Your task to perform on an android device: Search for jbl charge 4 on ebay.com, select the first entry, add it to the cart, then select checkout. Image 0: 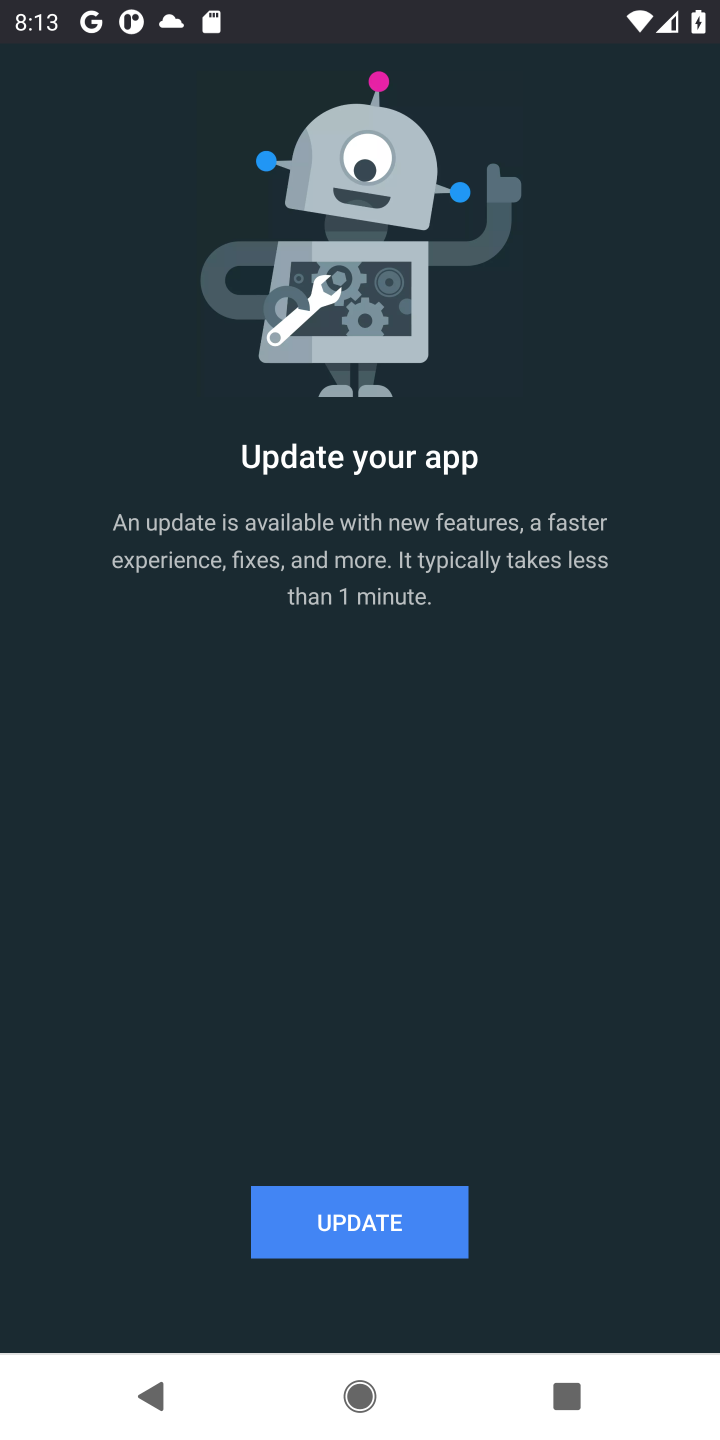
Step 0: press home button
Your task to perform on an android device: Search for jbl charge 4 on ebay.com, select the first entry, add it to the cart, then select checkout. Image 1: 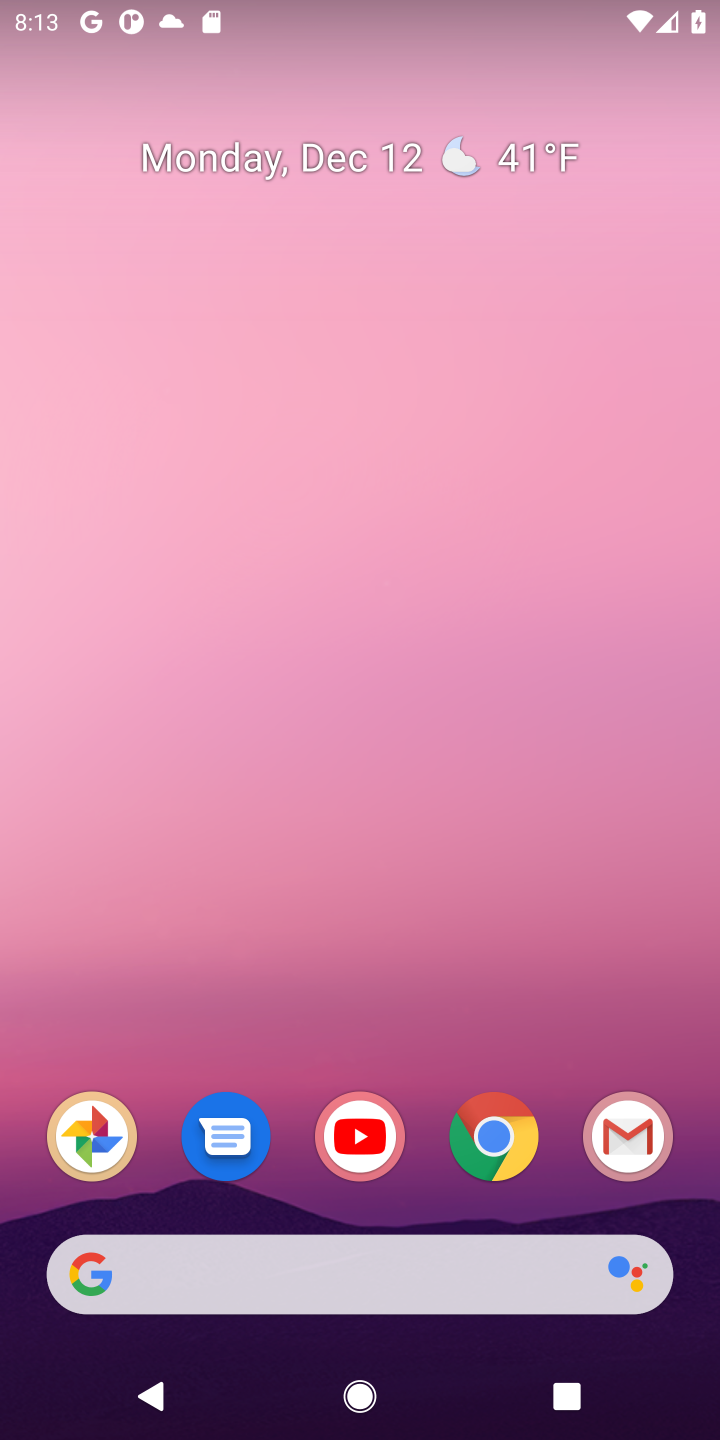
Step 1: click (502, 1139)
Your task to perform on an android device: Search for jbl charge 4 on ebay.com, select the first entry, add it to the cart, then select checkout. Image 2: 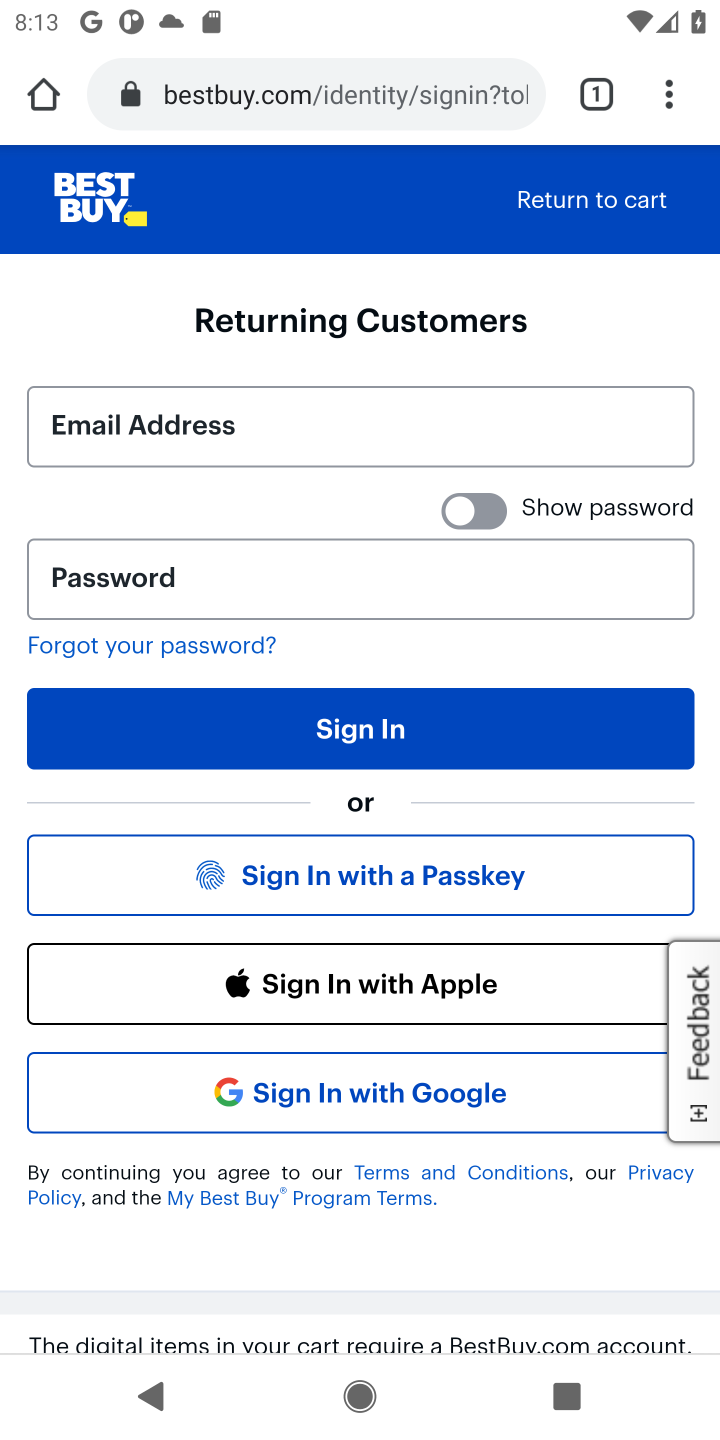
Step 2: click (348, 115)
Your task to perform on an android device: Search for jbl charge 4 on ebay.com, select the first entry, add it to the cart, then select checkout. Image 3: 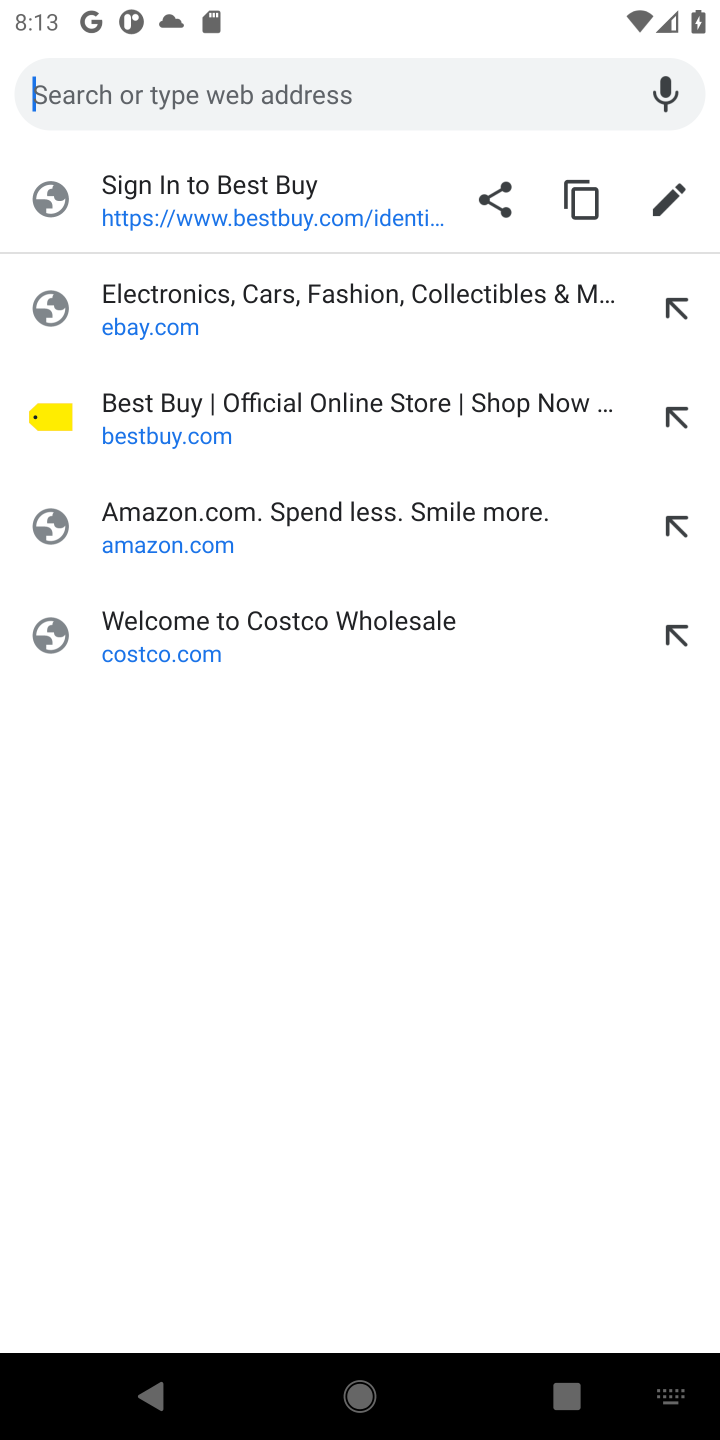
Step 3: click (207, 330)
Your task to perform on an android device: Search for jbl charge 4 on ebay.com, select the first entry, add it to the cart, then select checkout. Image 4: 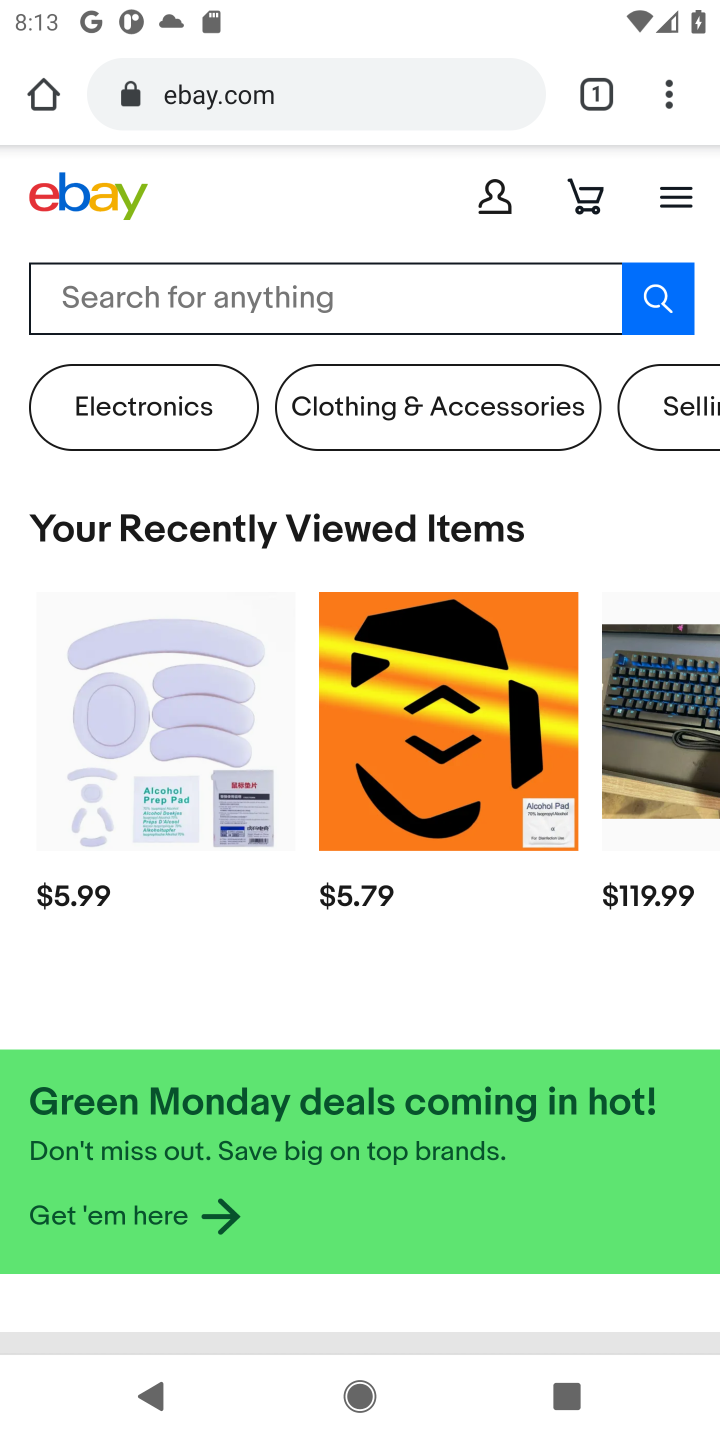
Step 4: click (219, 310)
Your task to perform on an android device: Search for jbl charge 4 on ebay.com, select the first entry, add it to the cart, then select checkout. Image 5: 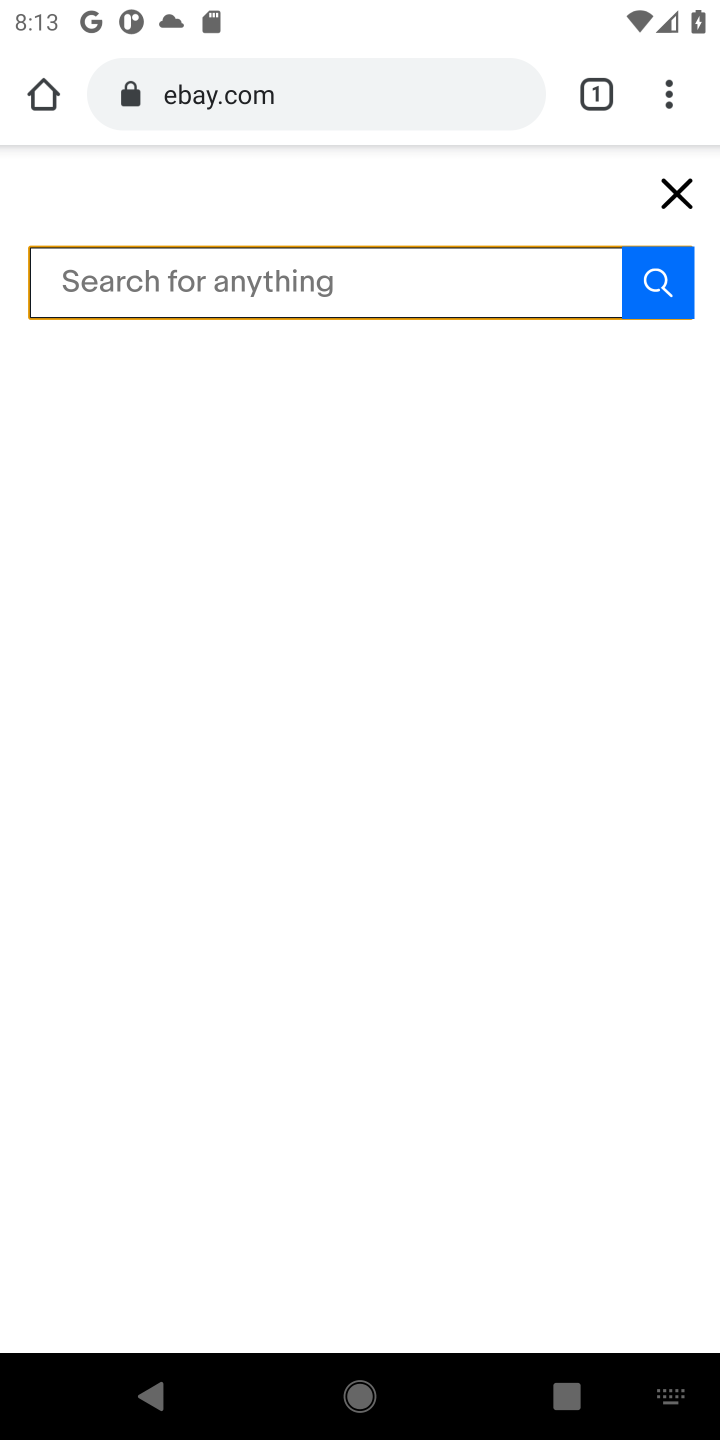
Step 5: type "jbl charge 4"
Your task to perform on an android device: Search for jbl charge 4 on ebay.com, select the first entry, add it to the cart, then select checkout. Image 6: 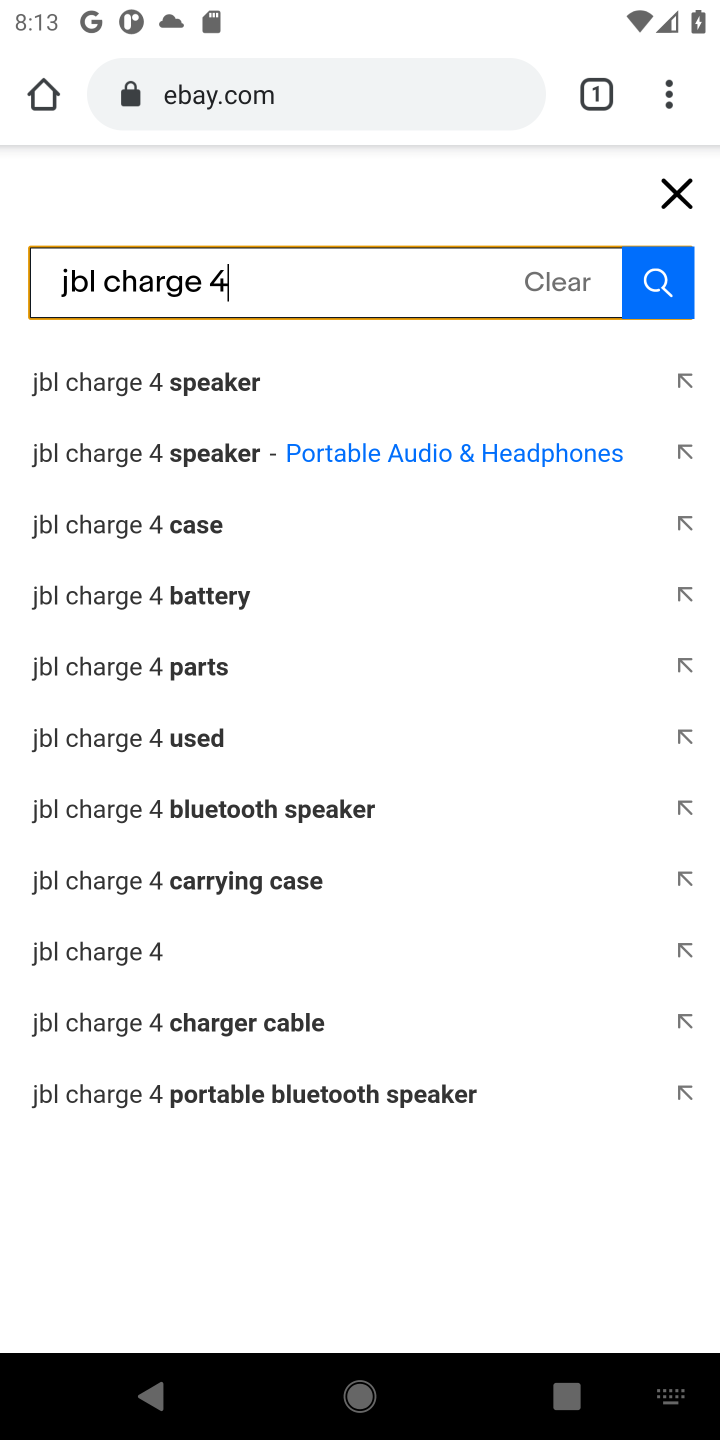
Step 6: click (143, 947)
Your task to perform on an android device: Search for jbl charge 4 on ebay.com, select the first entry, add it to the cart, then select checkout. Image 7: 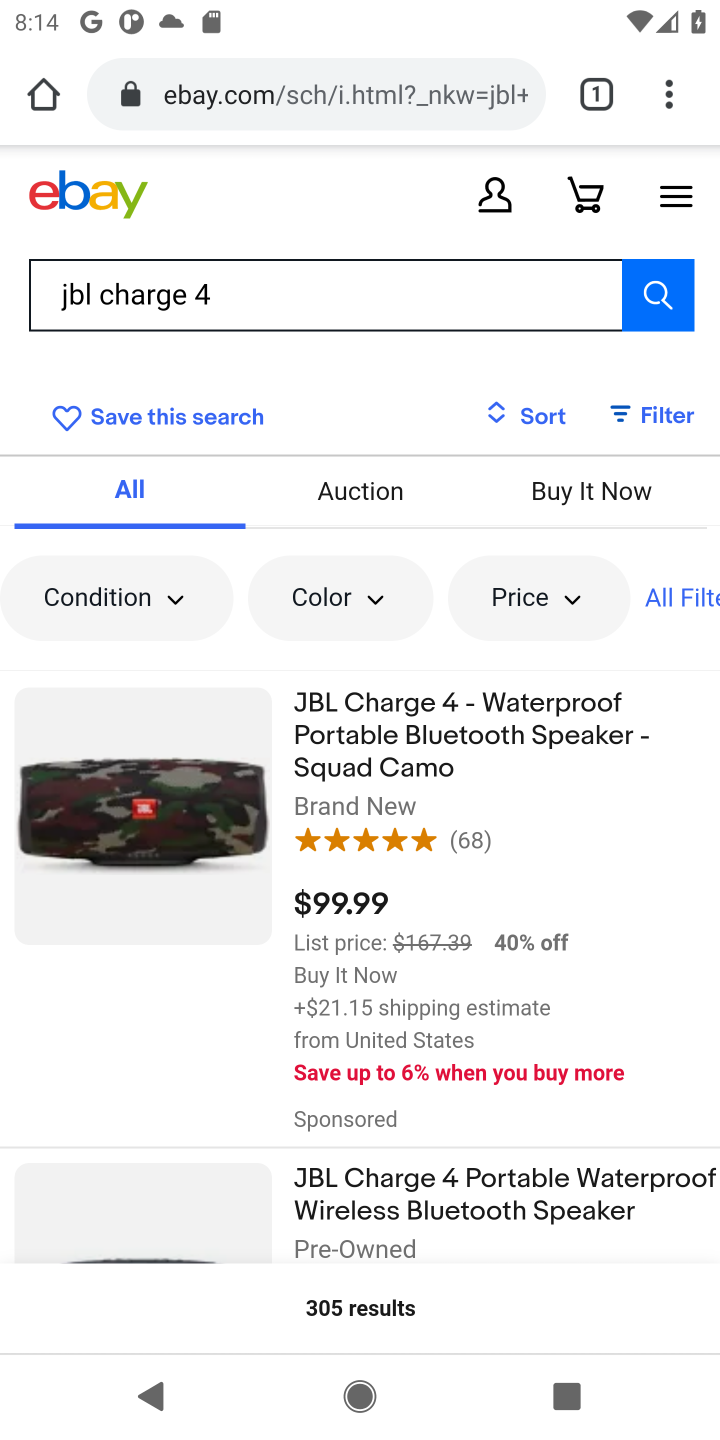
Step 7: click (379, 790)
Your task to perform on an android device: Search for jbl charge 4 on ebay.com, select the first entry, add it to the cart, then select checkout. Image 8: 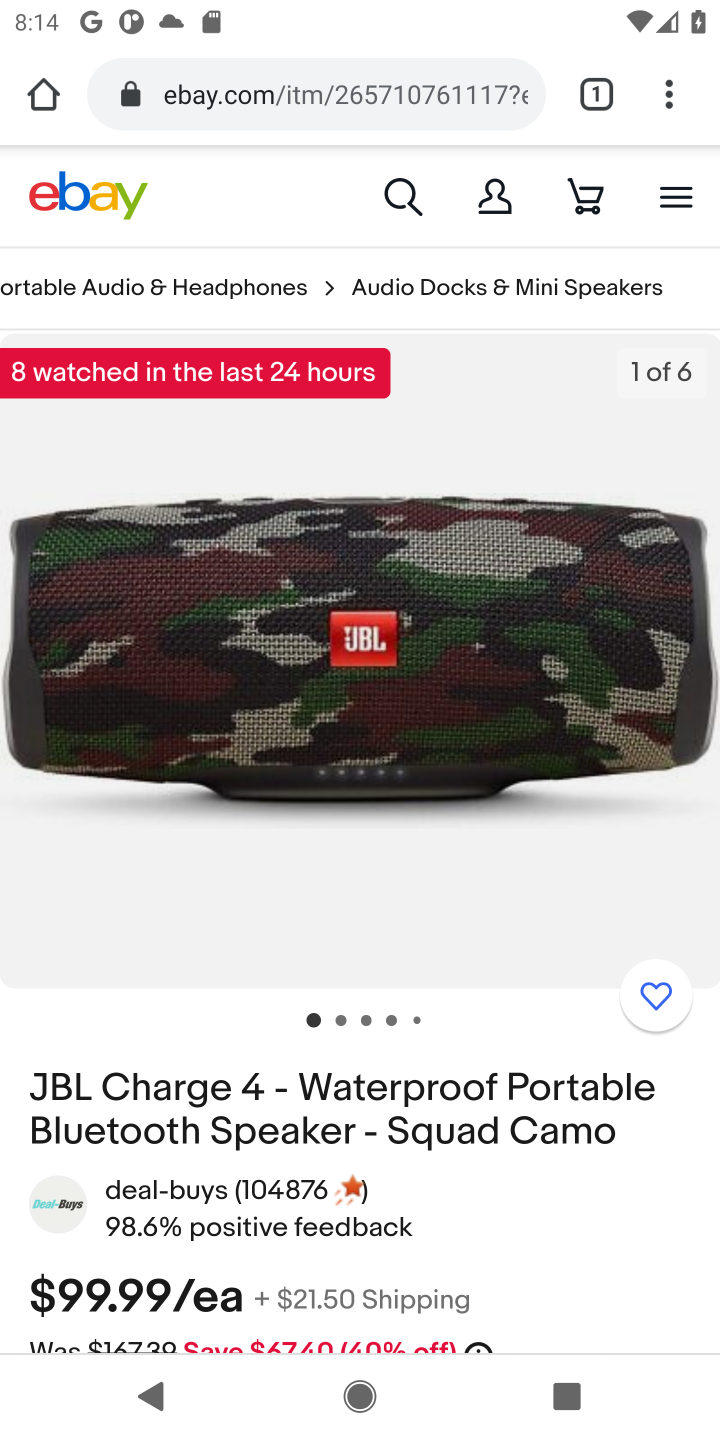
Step 8: drag from (393, 1122) to (389, 649)
Your task to perform on an android device: Search for jbl charge 4 on ebay.com, select the first entry, add it to the cart, then select checkout. Image 9: 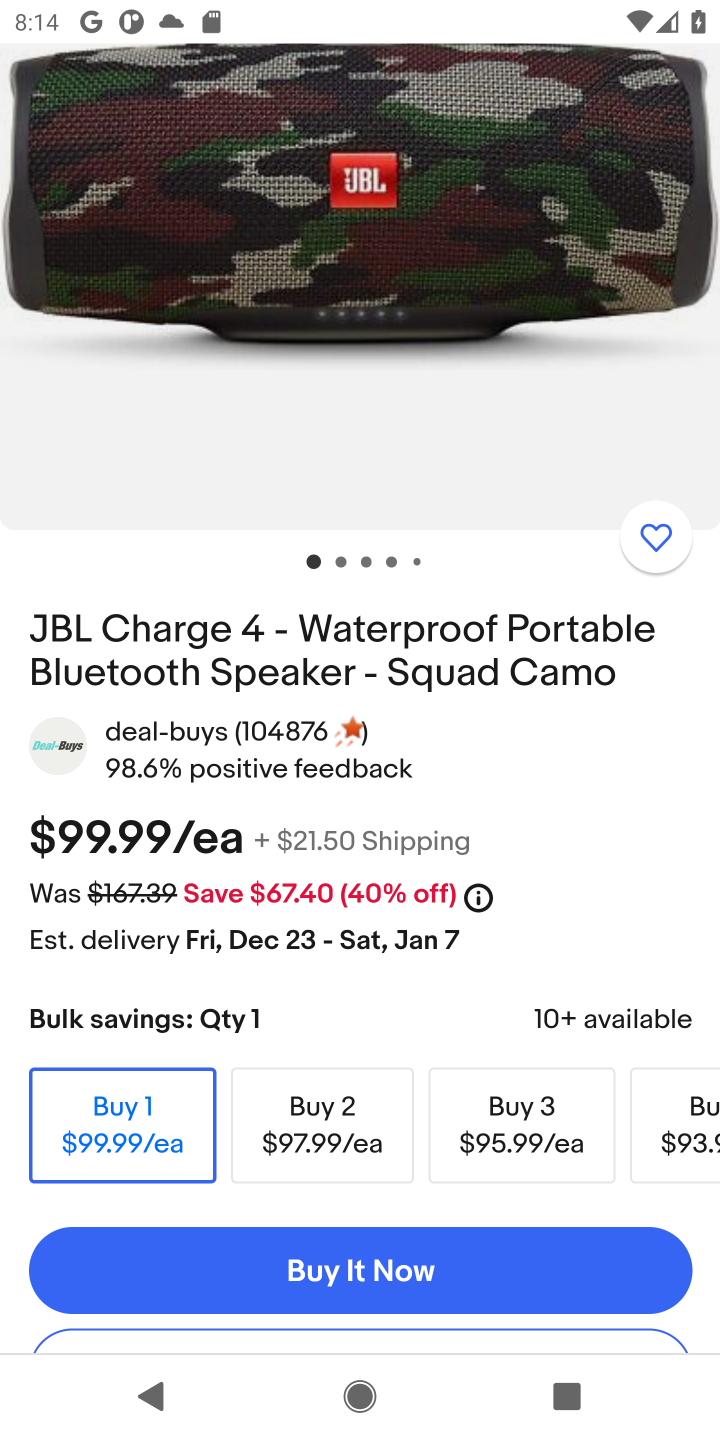
Step 9: drag from (393, 1037) to (363, 612)
Your task to perform on an android device: Search for jbl charge 4 on ebay.com, select the first entry, add it to the cart, then select checkout. Image 10: 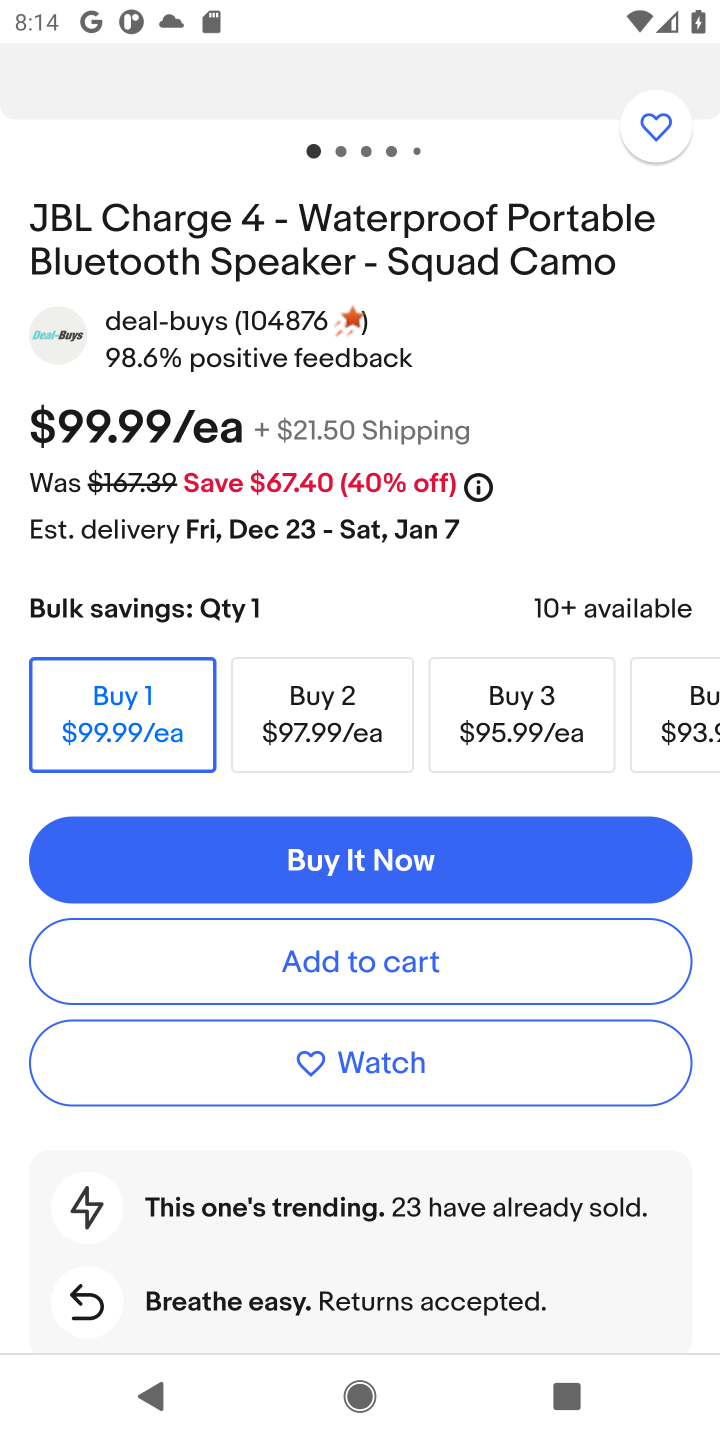
Step 10: click (306, 964)
Your task to perform on an android device: Search for jbl charge 4 on ebay.com, select the first entry, add it to the cart, then select checkout. Image 11: 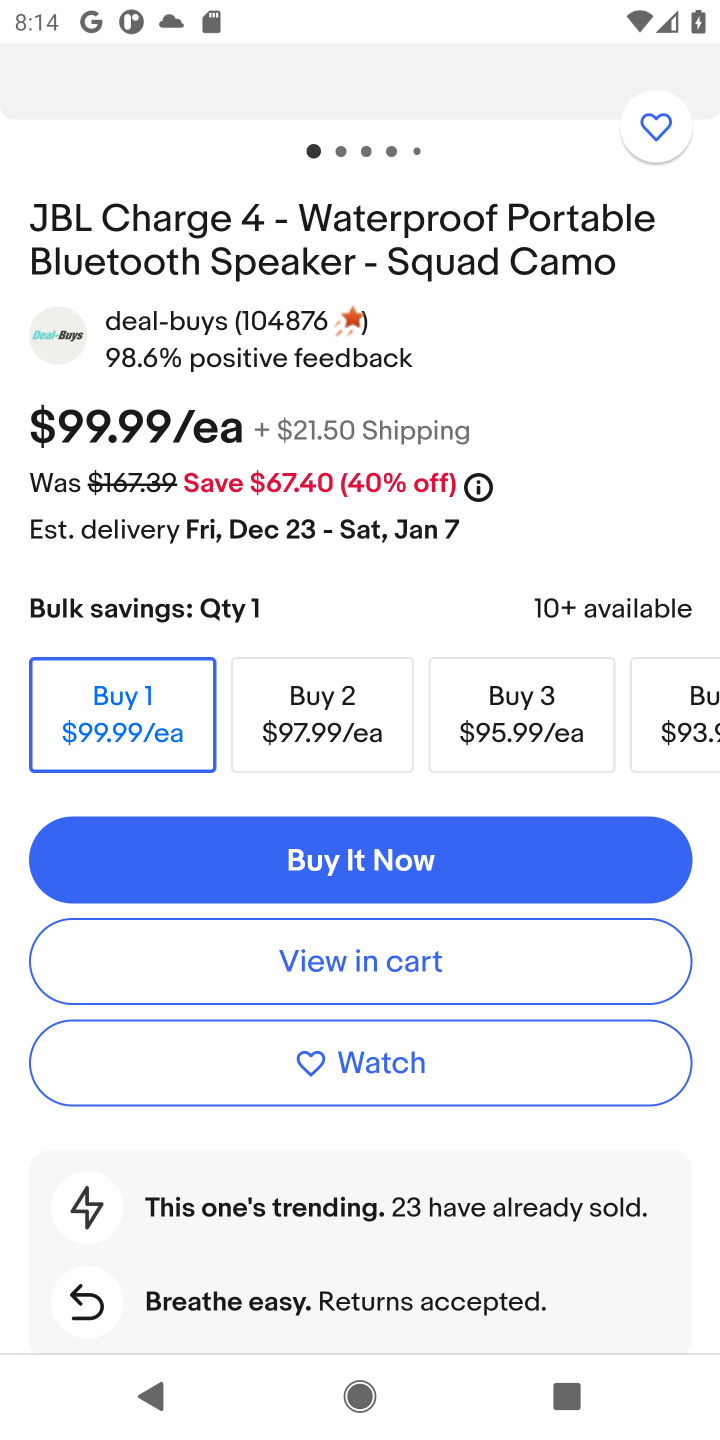
Step 11: click (306, 964)
Your task to perform on an android device: Search for jbl charge 4 on ebay.com, select the first entry, add it to the cart, then select checkout. Image 12: 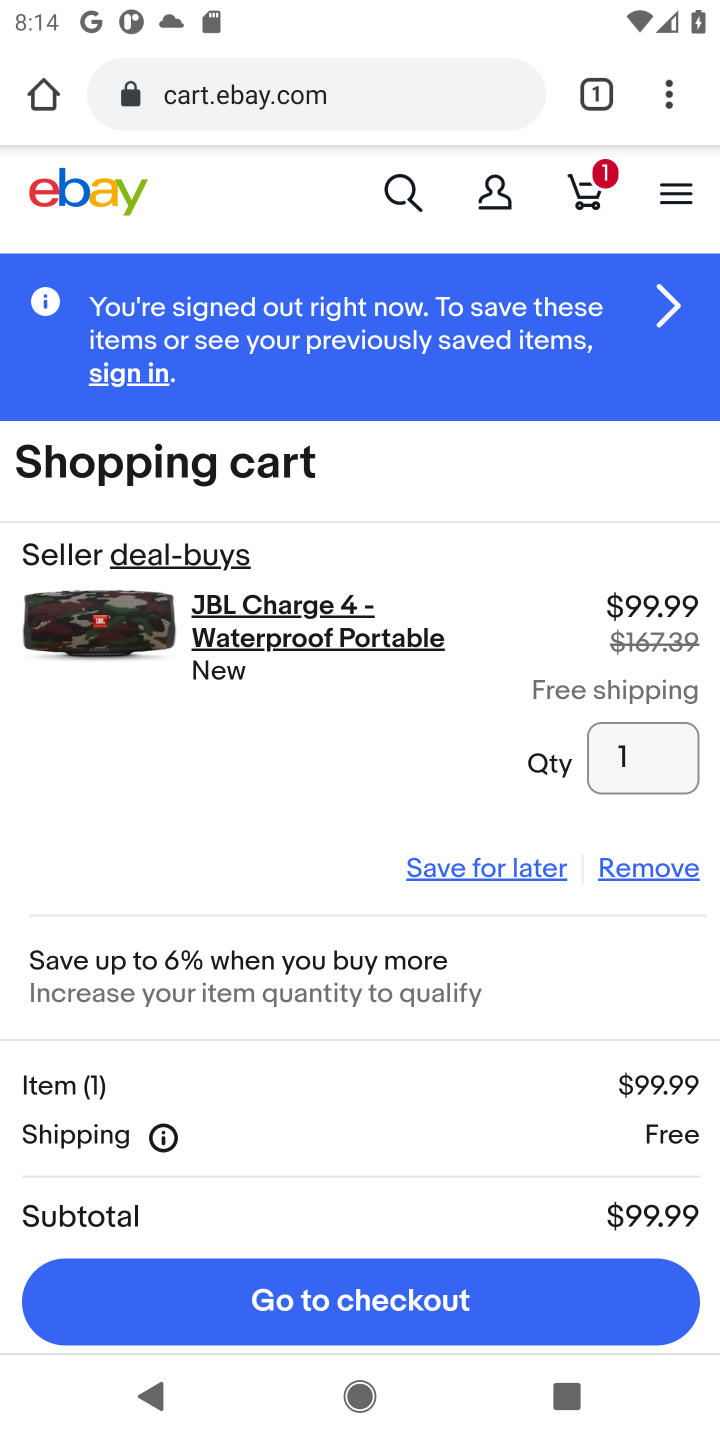
Step 12: click (298, 1293)
Your task to perform on an android device: Search for jbl charge 4 on ebay.com, select the first entry, add it to the cart, then select checkout. Image 13: 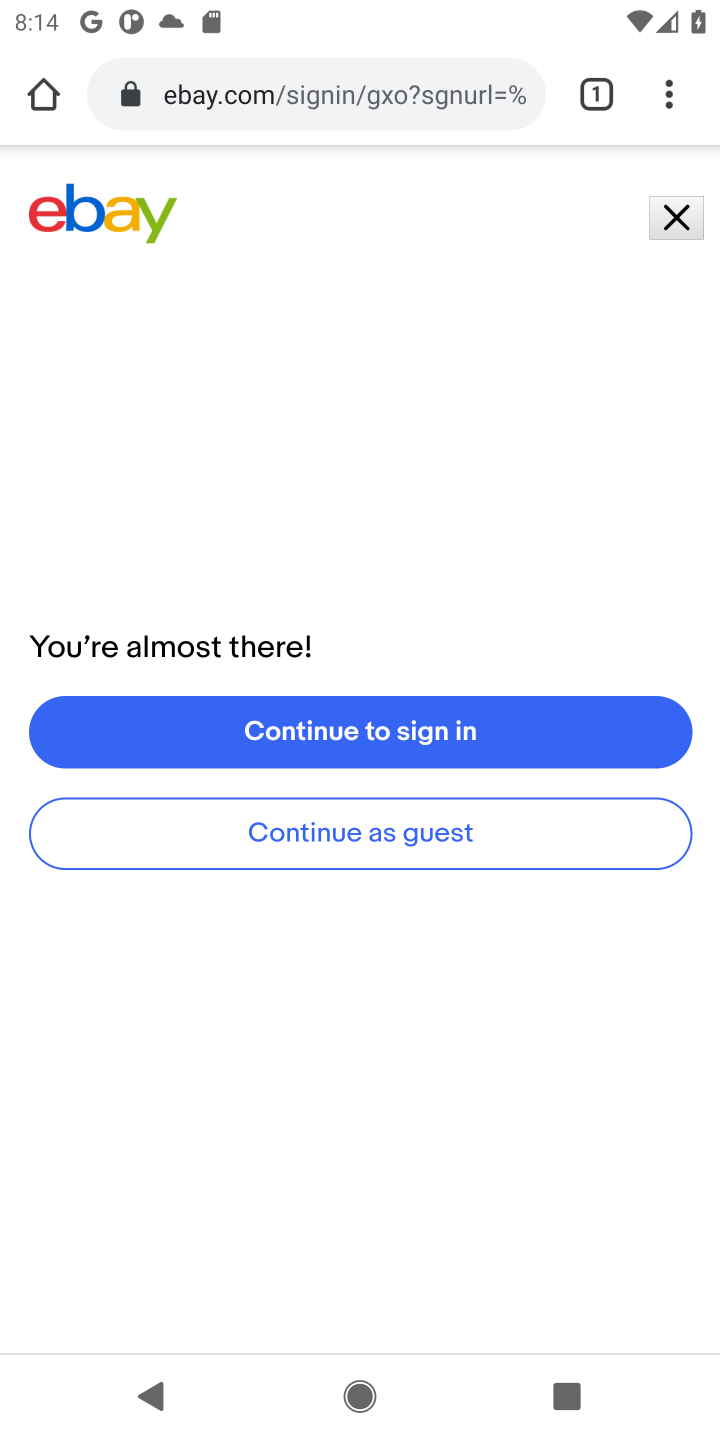
Step 13: task complete